Your task to perform on an android device: View the shopping cart on bestbuy. Add lenovo thinkpad to the cart on bestbuy, then select checkout. Image 0: 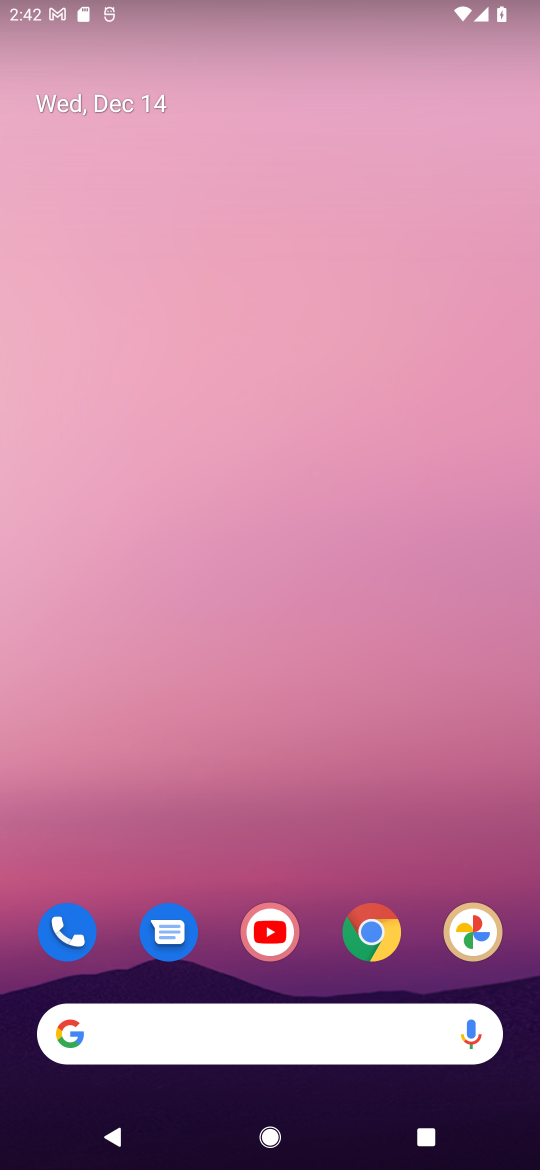
Step 0: click (234, 1047)
Your task to perform on an android device: View the shopping cart on bestbuy. Add lenovo thinkpad to the cart on bestbuy, then select checkout. Image 1: 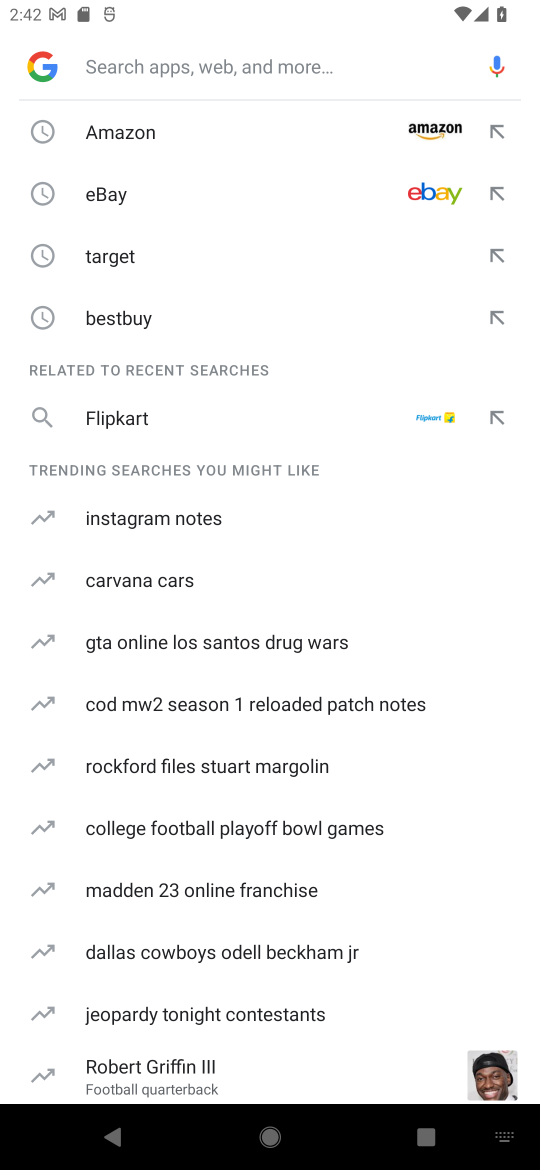
Step 1: click (130, 318)
Your task to perform on an android device: View the shopping cart on bestbuy. Add lenovo thinkpad to the cart on bestbuy, then select checkout. Image 2: 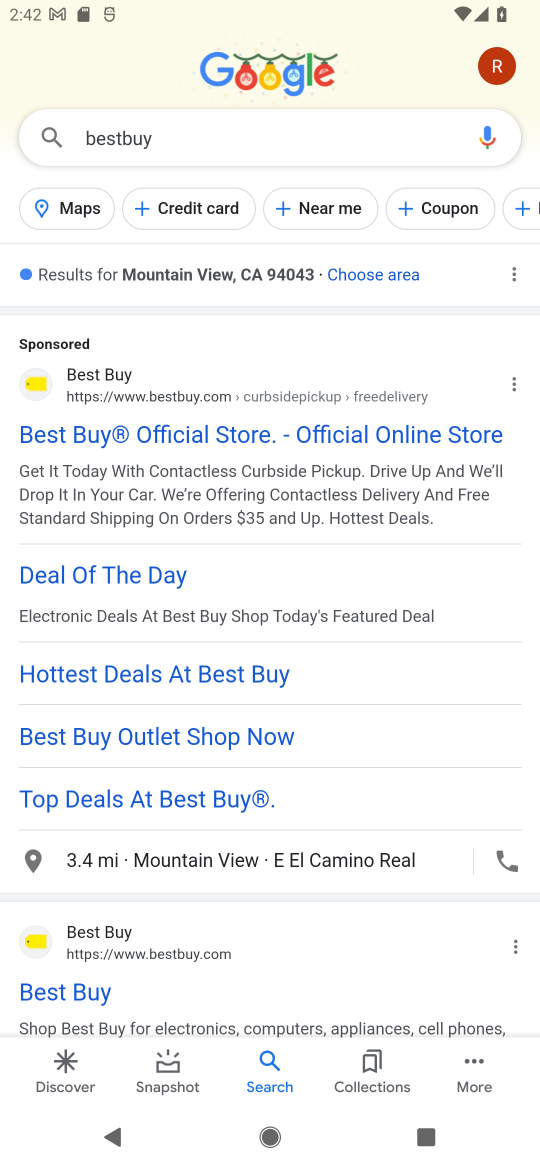
Step 2: click (96, 926)
Your task to perform on an android device: View the shopping cart on bestbuy. Add lenovo thinkpad to the cart on bestbuy, then select checkout. Image 3: 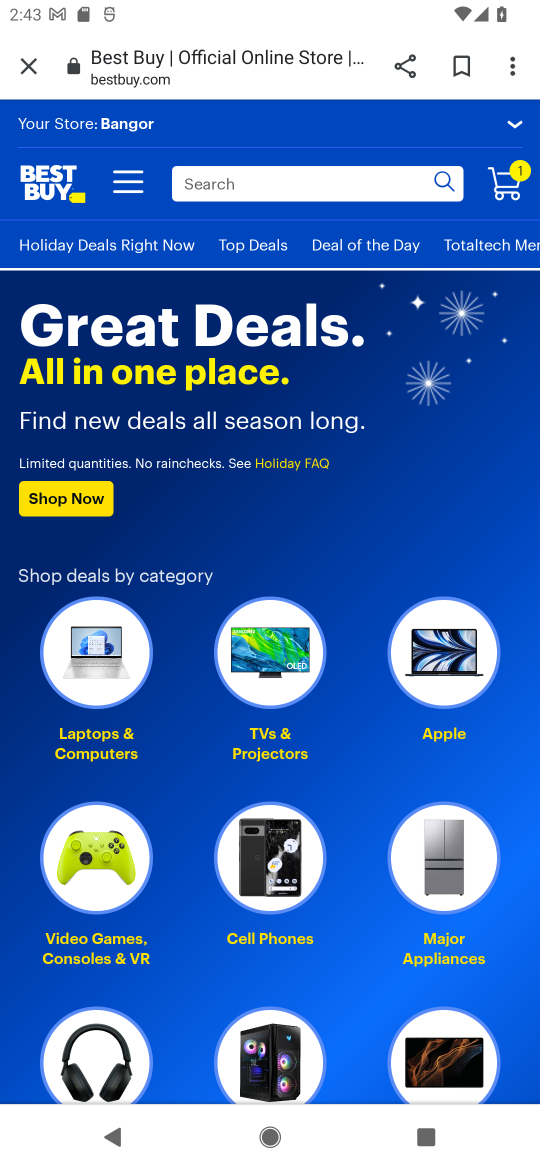
Step 3: click (503, 179)
Your task to perform on an android device: View the shopping cart on bestbuy. Add lenovo thinkpad to the cart on bestbuy, then select checkout. Image 4: 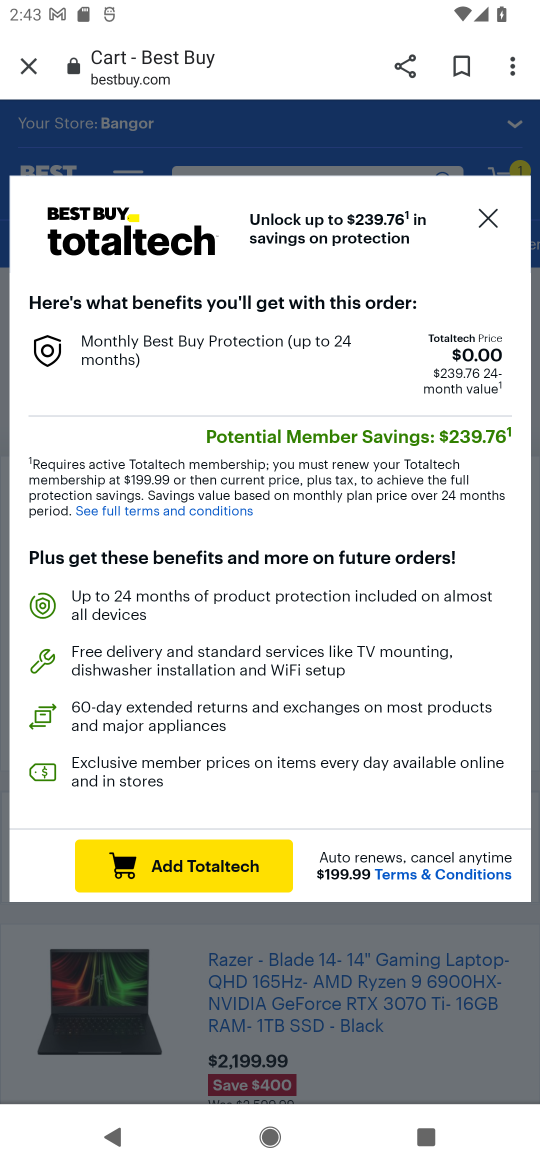
Step 4: click (488, 219)
Your task to perform on an android device: View the shopping cart on bestbuy. Add lenovo thinkpad to the cart on bestbuy, then select checkout. Image 5: 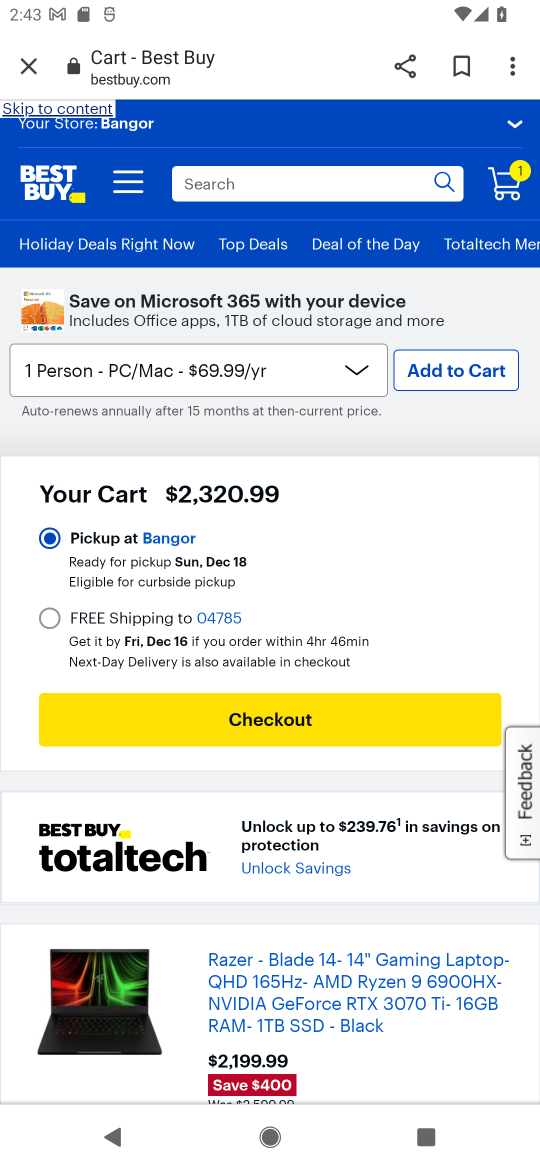
Step 5: click (315, 187)
Your task to perform on an android device: View the shopping cart on bestbuy. Add lenovo thinkpad to the cart on bestbuy, then select checkout. Image 6: 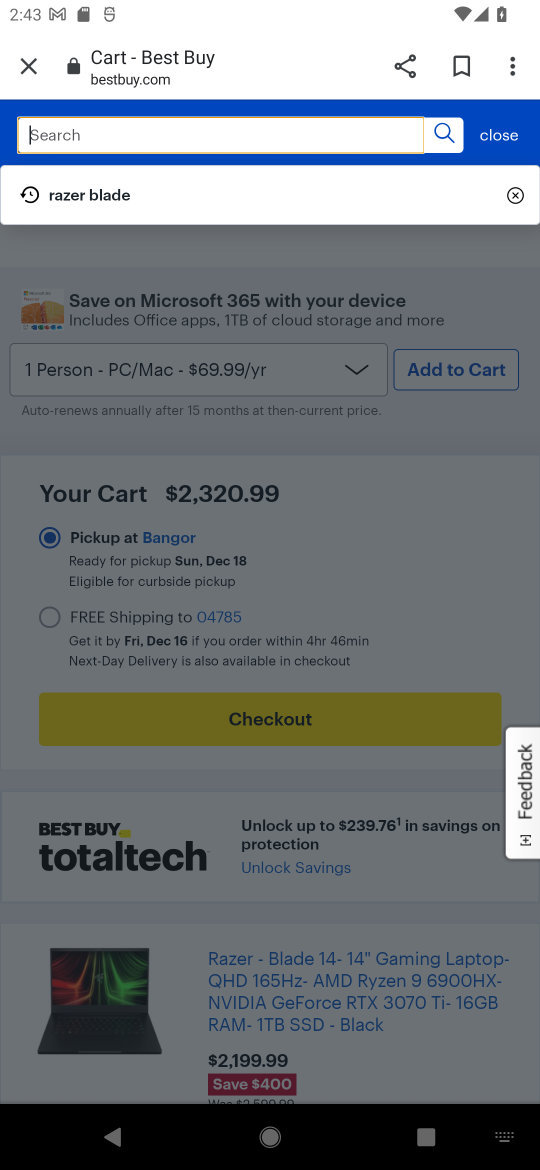
Step 6: type " lenovo thinkpad "
Your task to perform on an android device: View the shopping cart on bestbuy. Add lenovo thinkpad to the cart on bestbuy, then select checkout. Image 7: 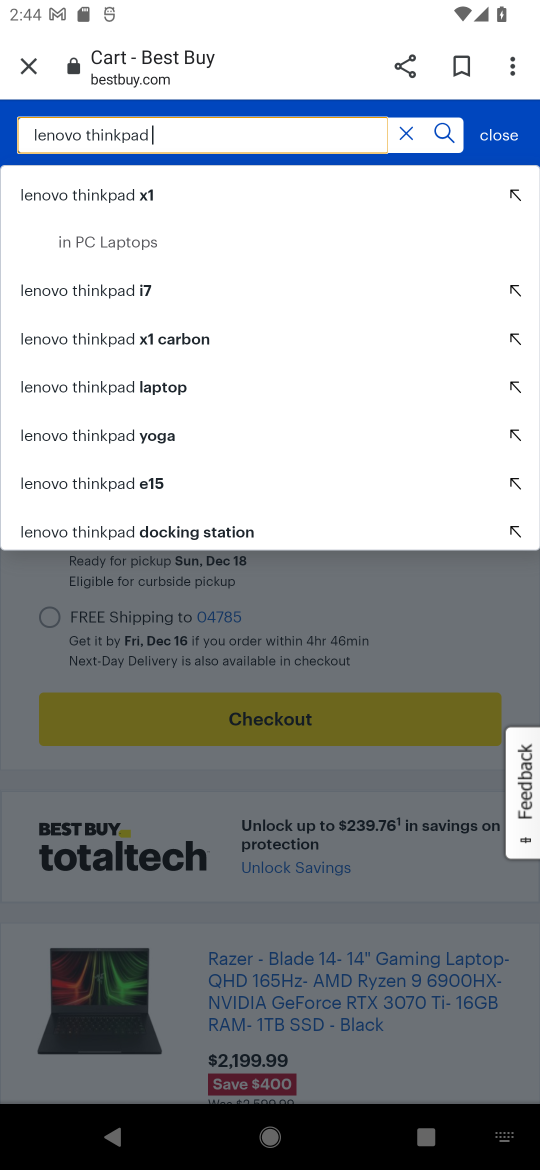
Step 7: click (448, 129)
Your task to perform on an android device: View the shopping cart on bestbuy. Add lenovo thinkpad to the cart on bestbuy, then select checkout. Image 8: 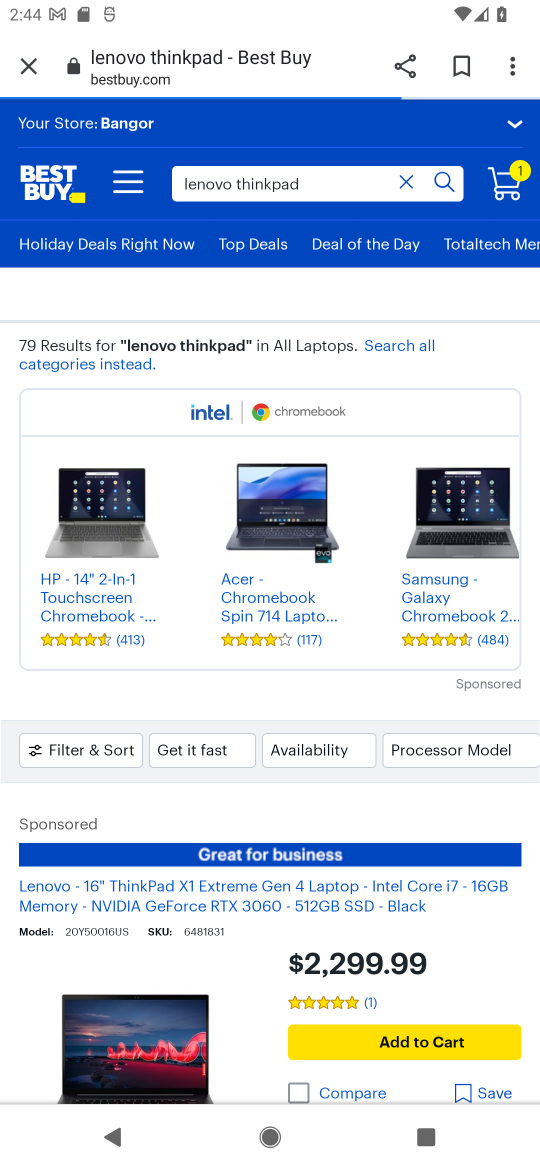
Step 8: drag from (383, 1043) to (381, 638)
Your task to perform on an android device: View the shopping cart on bestbuy. Add lenovo thinkpad to the cart on bestbuy, then select checkout. Image 9: 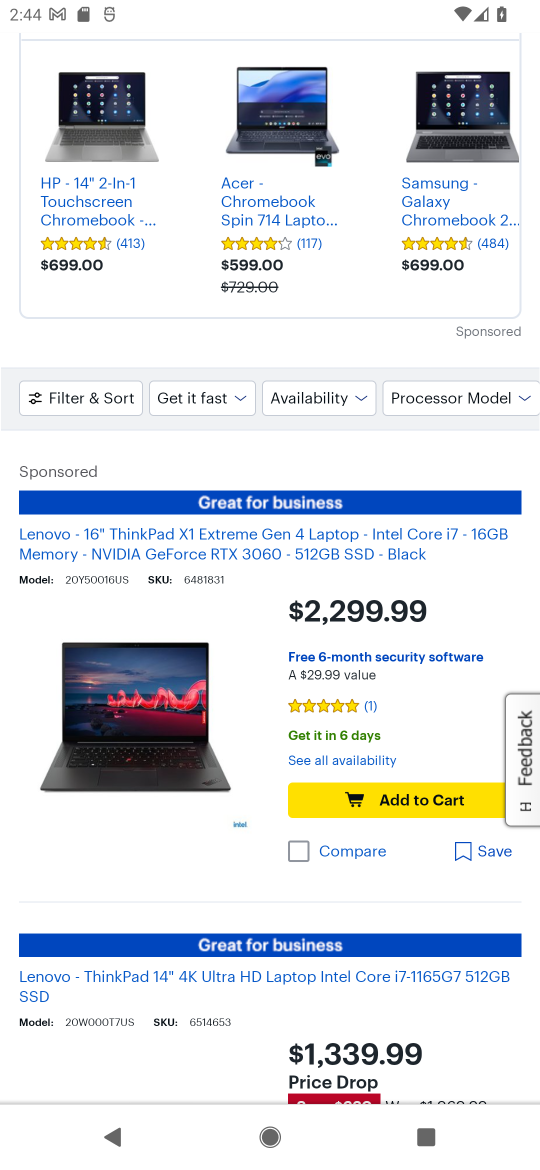
Step 9: click (400, 800)
Your task to perform on an android device: View the shopping cart on bestbuy. Add lenovo thinkpad to the cart on bestbuy, then select checkout. Image 10: 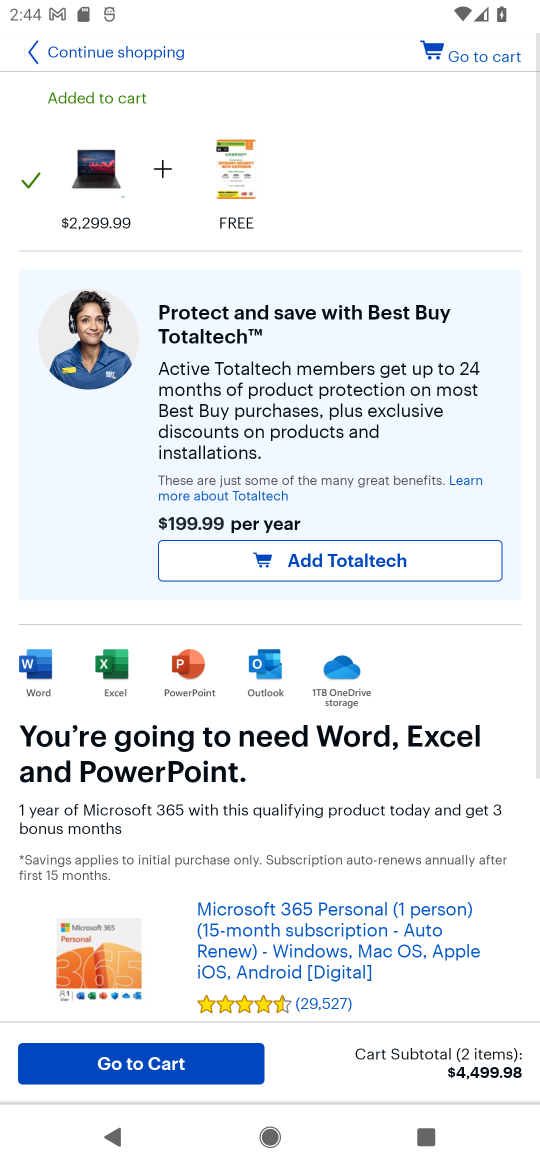
Step 10: click (126, 1064)
Your task to perform on an android device: View the shopping cart on bestbuy. Add lenovo thinkpad to the cart on bestbuy, then select checkout. Image 11: 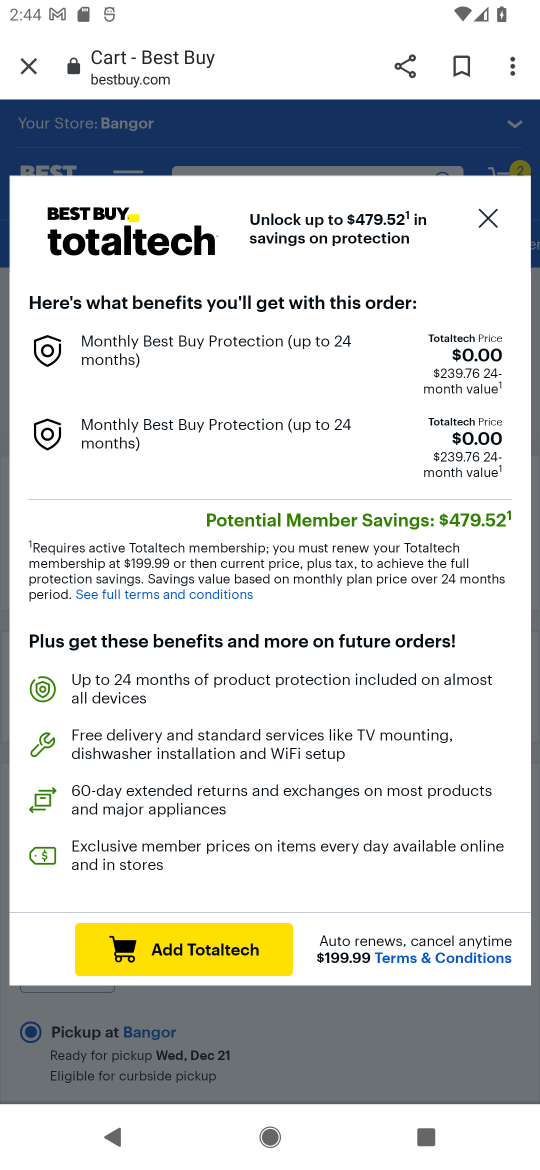
Step 11: click (279, 553)
Your task to perform on an android device: View the shopping cart on bestbuy. Add lenovo thinkpad to the cart on bestbuy, then select checkout. Image 12: 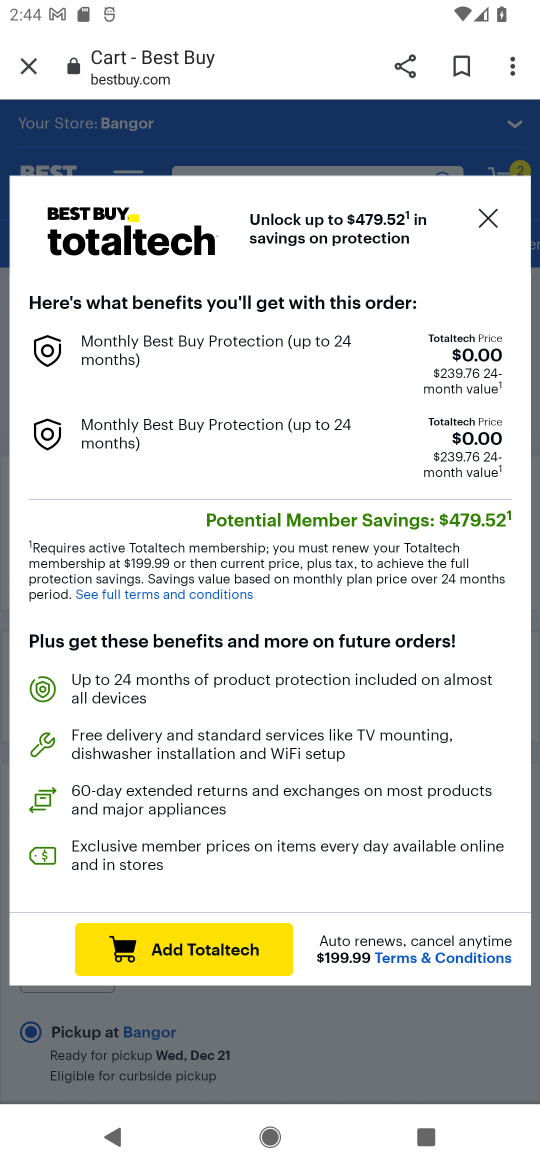
Step 12: click (486, 222)
Your task to perform on an android device: View the shopping cart on bestbuy. Add lenovo thinkpad to the cart on bestbuy, then select checkout. Image 13: 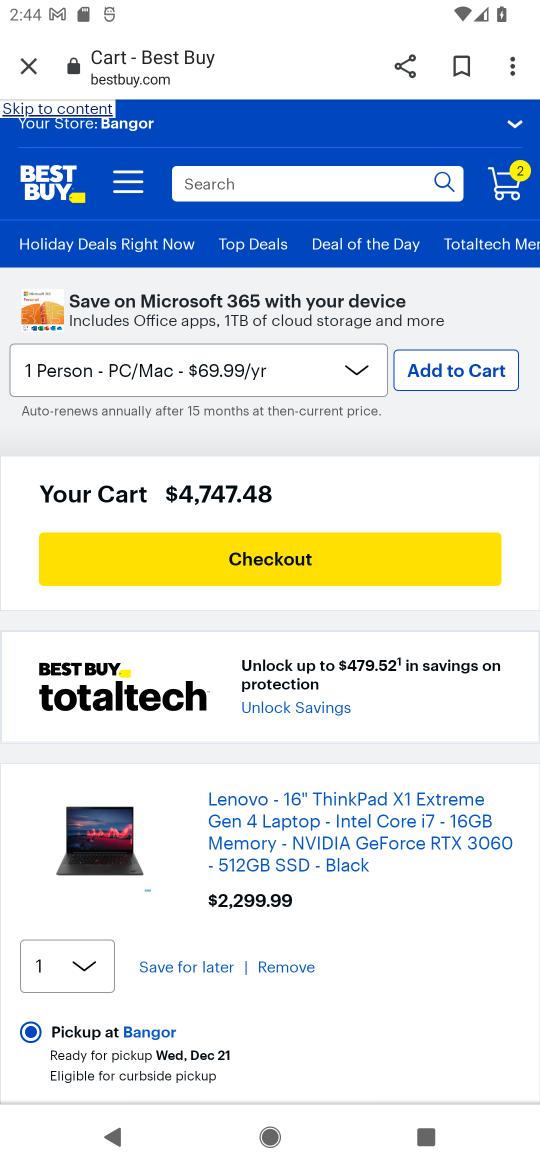
Step 13: task complete